Your task to perform on an android device: empty trash in the gmail app Image 0: 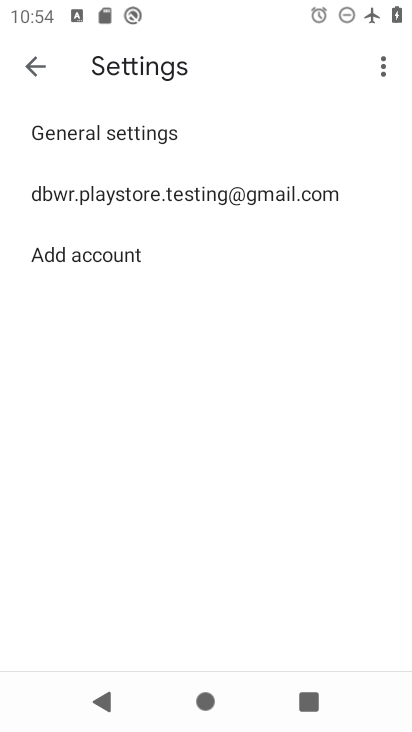
Step 0: press home button
Your task to perform on an android device: empty trash in the gmail app Image 1: 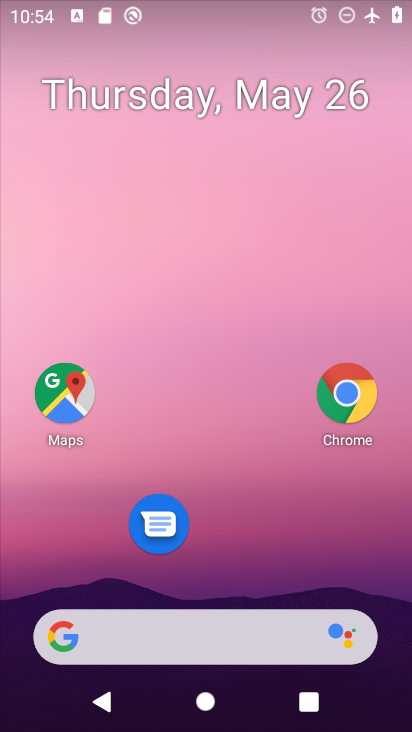
Step 1: drag from (228, 534) to (260, 18)
Your task to perform on an android device: empty trash in the gmail app Image 2: 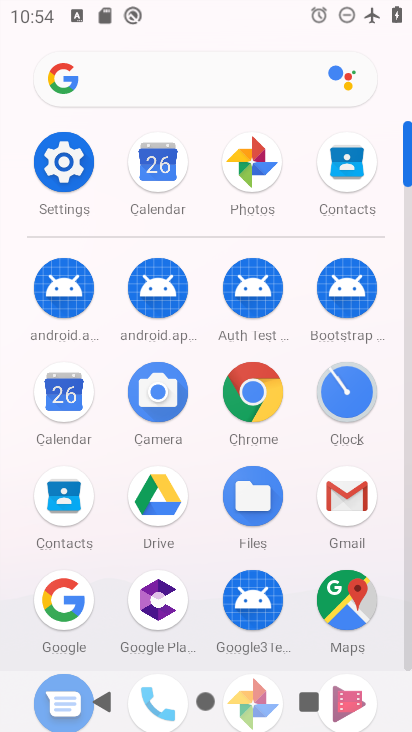
Step 2: click (349, 493)
Your task to perform on an android device: empty trash in the gmail app Image 3: 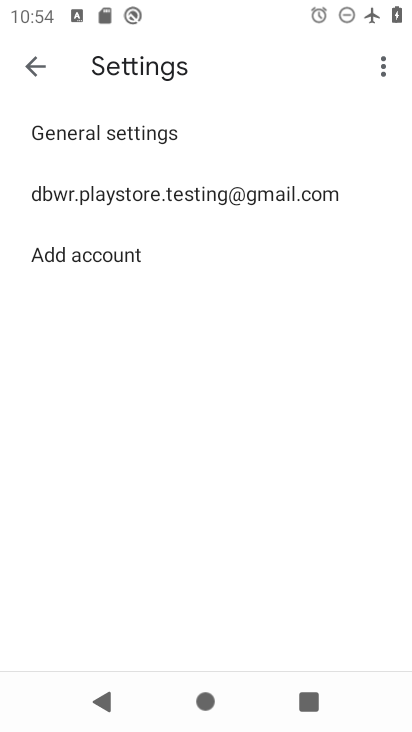
Step 3: click (38, 67)
Your task to perform on an android device: empty trash in the gmail app Image 4: 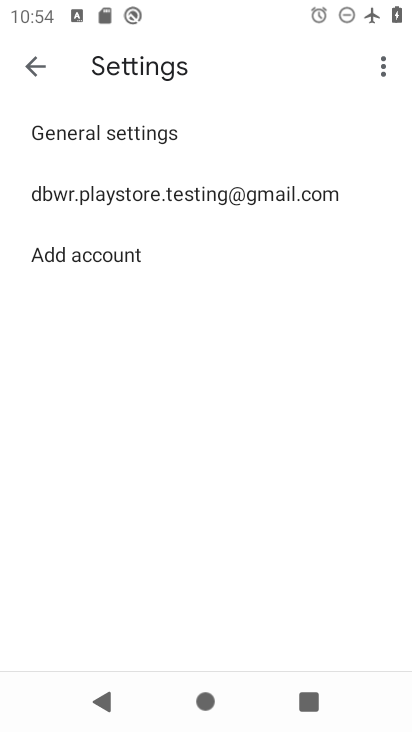
Step 4: click (38, 62)
Your task to perform on an android device: empty trash in the gmail app Image 5: 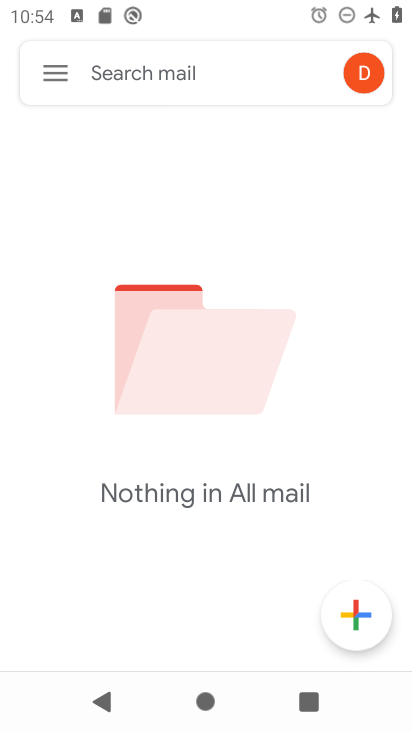
Step 5: click (43, 68)
Your task to perform on an android device: empty trash in the gmail app Image 6: 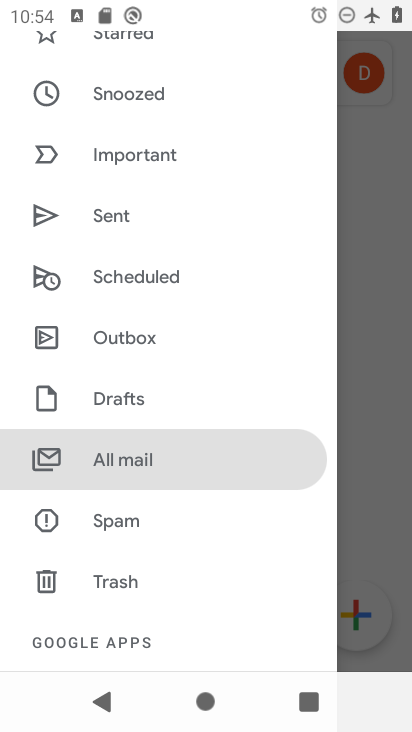
Step 6: click (144, 578)
Your task to perform on an android device: empty trash in the gmail app Image 7: 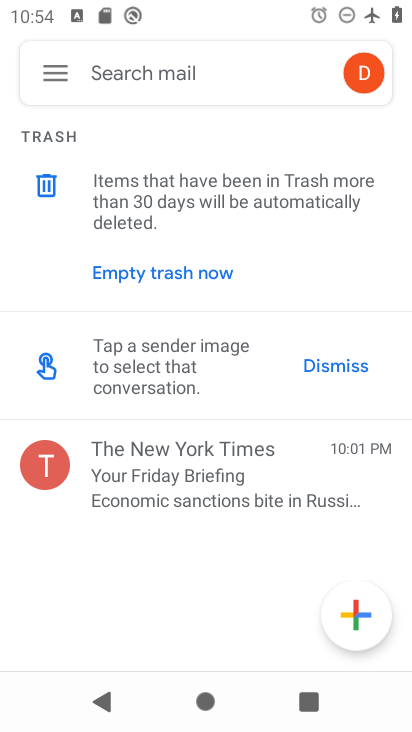
Step 7: click (223, 264)
Your task to perform on an android device: empty trash in the gmail app Image 8: 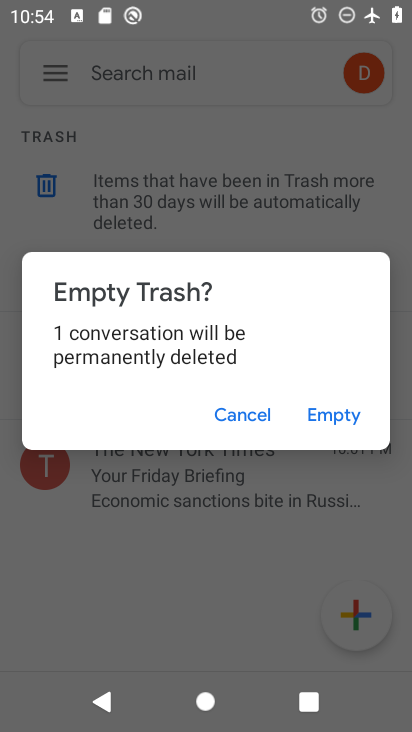
Step 8: click (341, 412)
Your task to perform on an android device: empty trash in the gmail app Image 9: 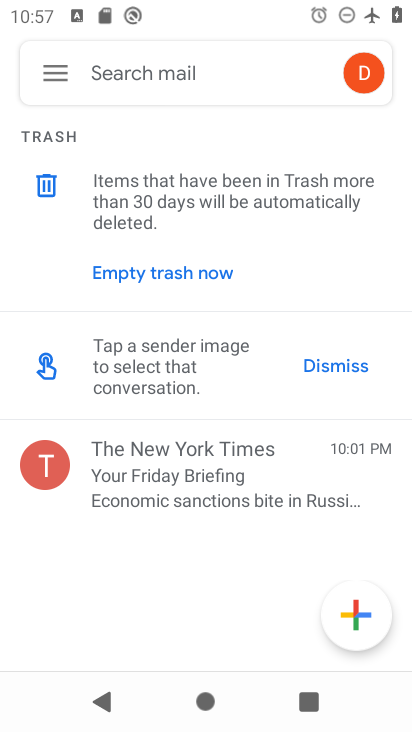
Step 9: task complete